Your task to perform on an android device: turn notification dots on Image 0: 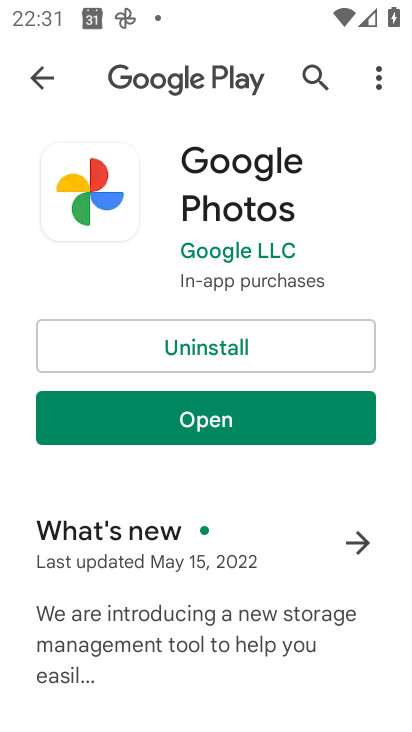
Step 0: press home button
Your task to perform on an android device: turn notification dots on Image 1: 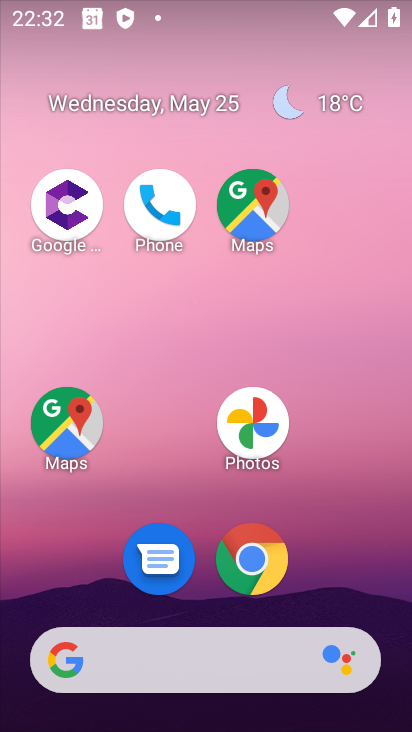
Step 1: drag from (329, 612) to (269, 38)
Your task to perform on an android device: turn notification dots on Image 2: 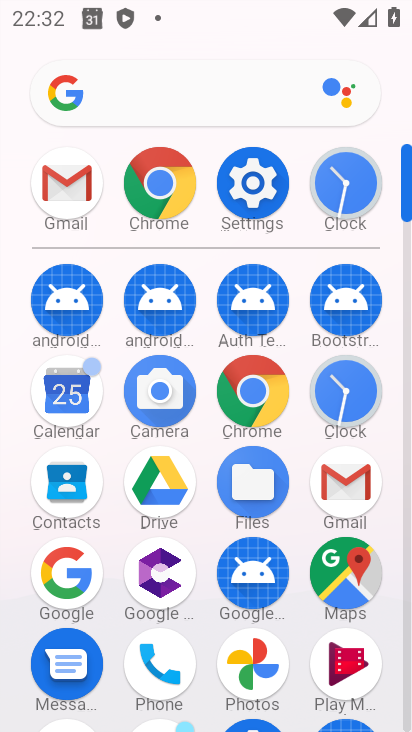
Step 2: click (258, 191)
Your task to perform on an android device: turn notification dots on Image 3: 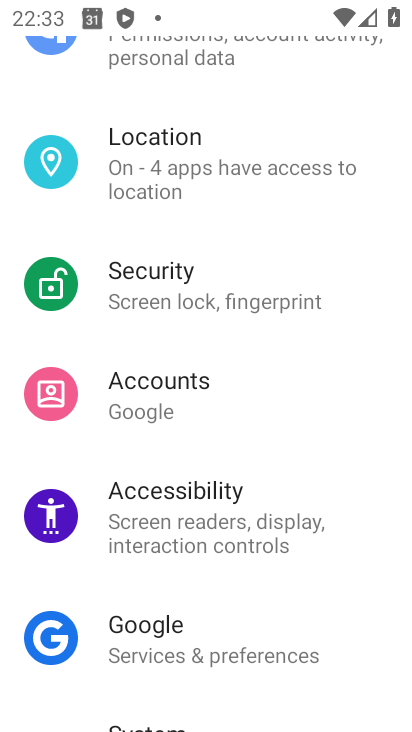
Step 3: drag from (302, 270) to (275, 551)
Your task to perform on an android device: turn notification dots on Image 4: 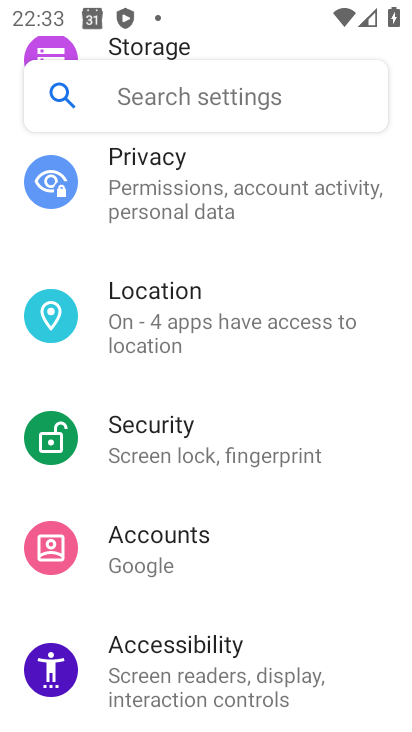
Step 4: drag from (257, 180) to (278, 485)
Your task to perform on an android device: turn notification dots on Image 5: 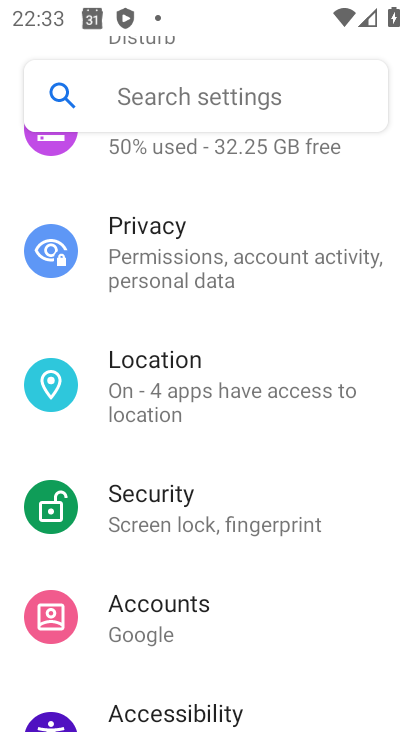
Step 5: drag from (312, 247) to (307, 578)
Your task to perform on an android device: turn notification dots on Image 6: 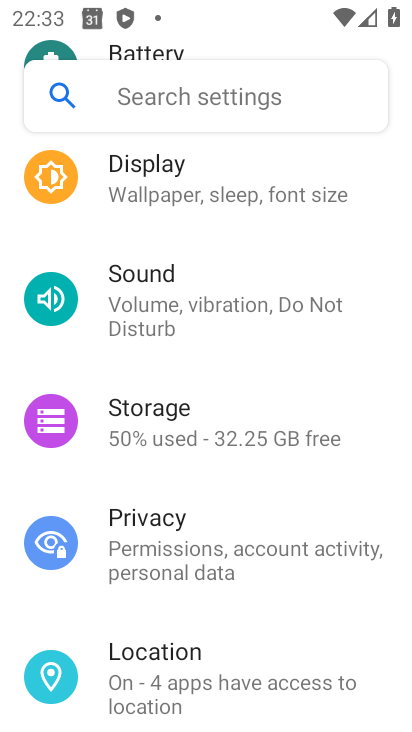
Step 6: drag from (307, 274) to (325, 605)
Your task to perform on an android device: turn notification dots on Image 7: 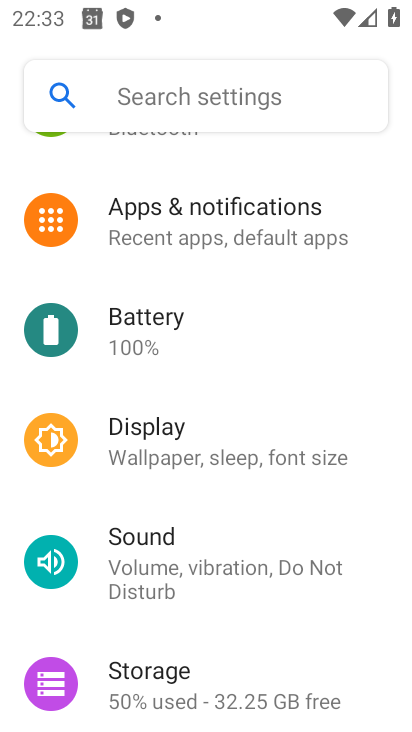
Step 7: click (260, 228)
Your task to perform on an android device: turn notification dots on Image 8: 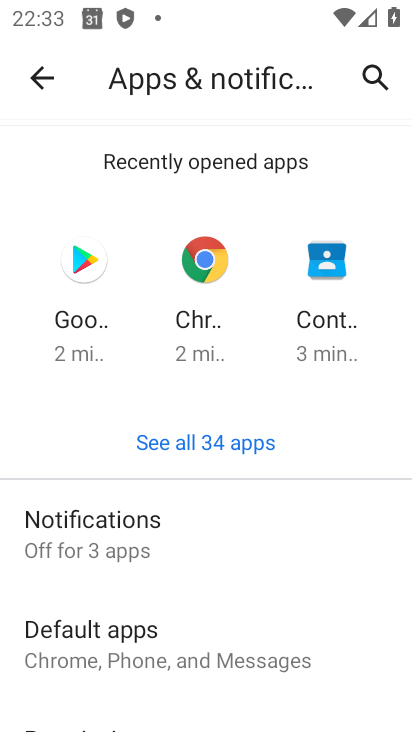
Step 8: click (147, 540)
Your task to perform on an android device: turn notification dots on Image 9: 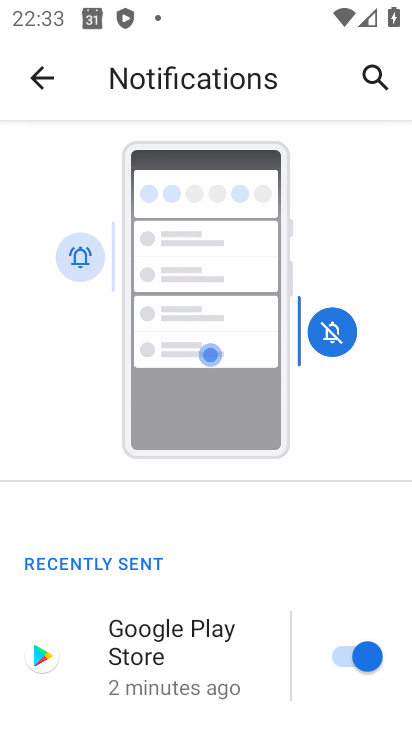
Step 9: drag from (279, 563) to (214, 81)
Your task to perform on an android device: turn notification dots on Image 10: 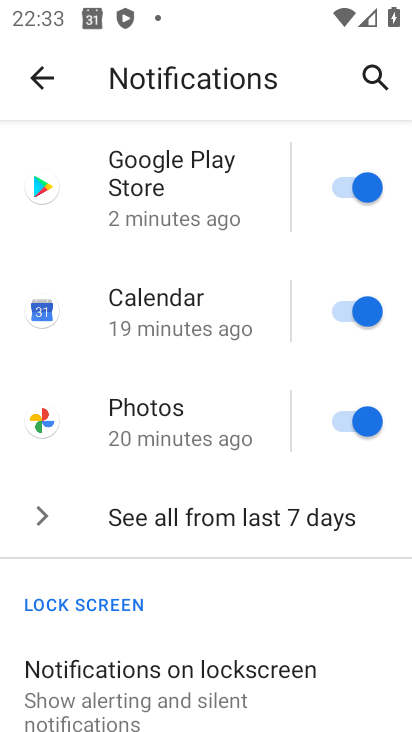
Step 10: drag from (213, 616) to (227, 97)
Your task to perform on an android device: turn notification dots on Image 11: 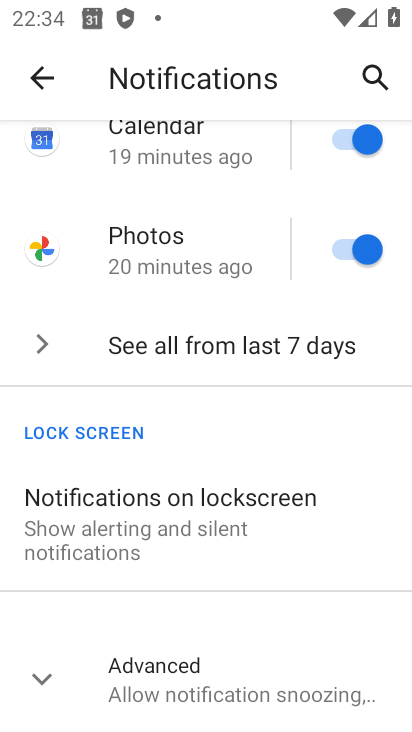
Step 11: click (227, 704)
Your task to perform on an android device: turn notification dots on Image 12: 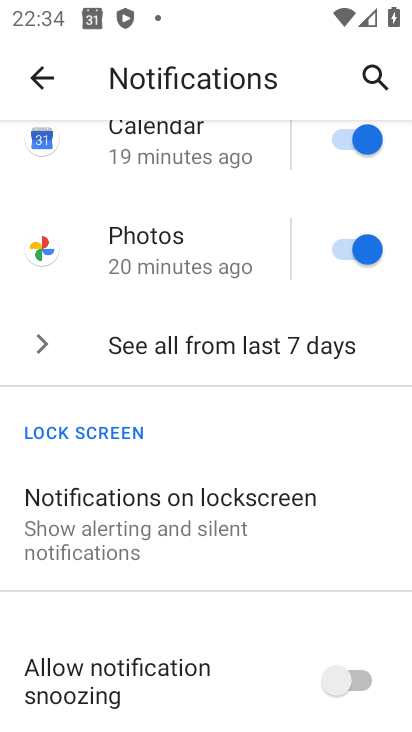
Step 12: task complete